Your task to perform on an android device: turn off notifications settings in the gmail app Image 0: 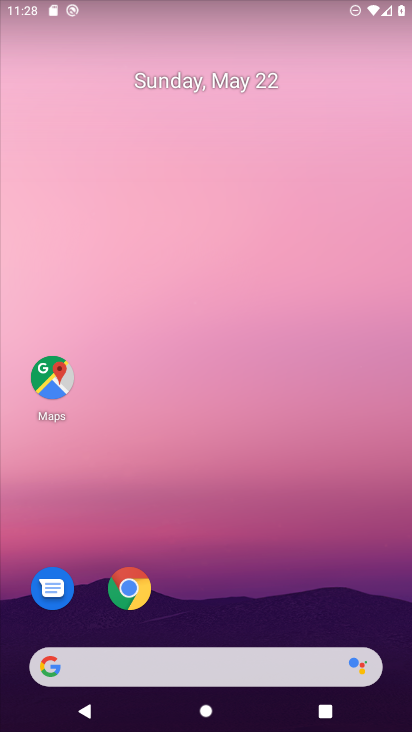
Step 0: drag from (252, 643) to (294, 210)
Your task to perform on an android device: turn off notifications settings in the gmail app Image 1: 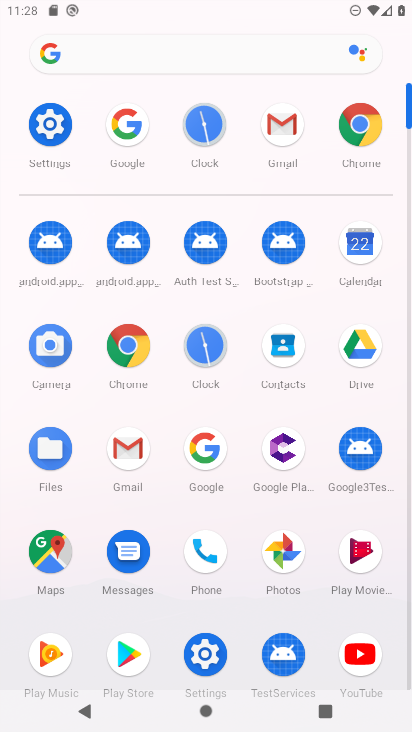
Step 1: click (295, 128)
Your task to perform on an android device: turn off notifications settings in the gmail app Image 2: 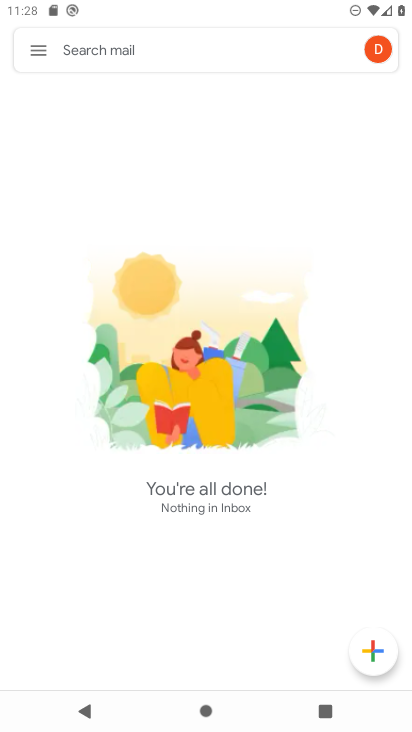
Step 2: click (35, 55)
Your task to perform on an android device: turn off notifications settings in the gmail app Image 3: 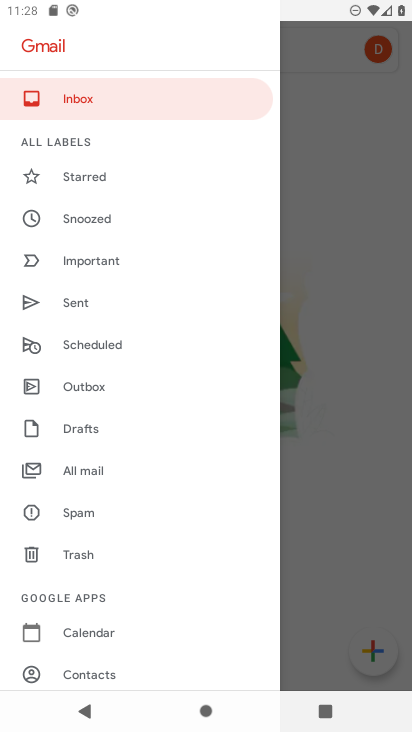
Step 3: drag from (120, 654) to (180, 138)
Your task to perform on an android device: turn off notifications settings in the gmail app Image 4: 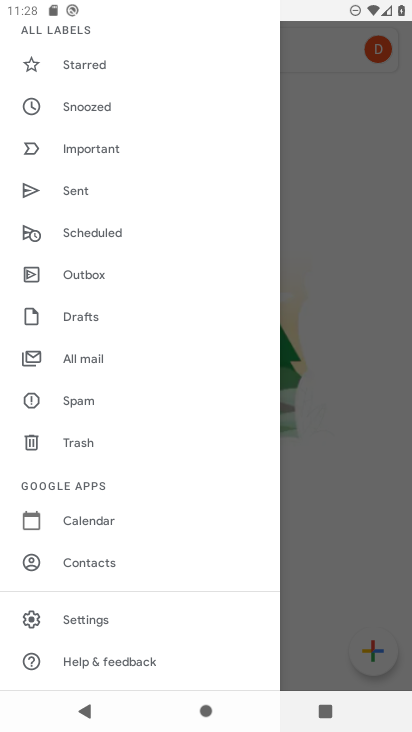
Step 4: click (83, 629)
Your task to perform on an android device: turn off notifications settings in the gmail app Image 5: 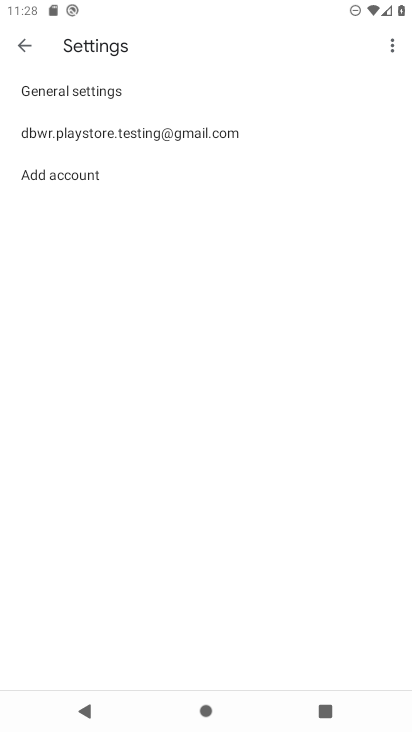
Step 5: click (102, 94)
Your task to perform on an android device: turn off notifications settings in the gmail app Image 6: 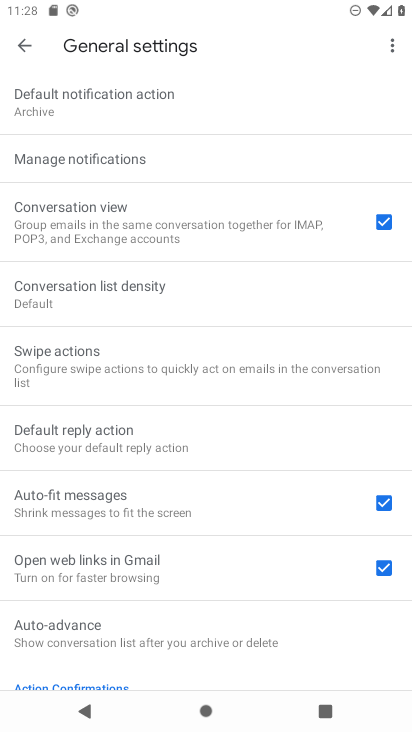
Step 6: click (103, 166)
Your task to perform on an android device: turn off notifications settings in the gmail app Image 7: 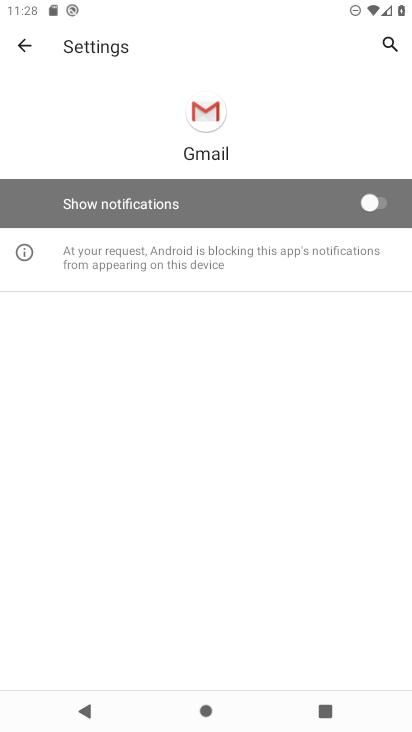
Step 7: task complete